Your task to perform on an android device: Toggle the flashlight Image 0: 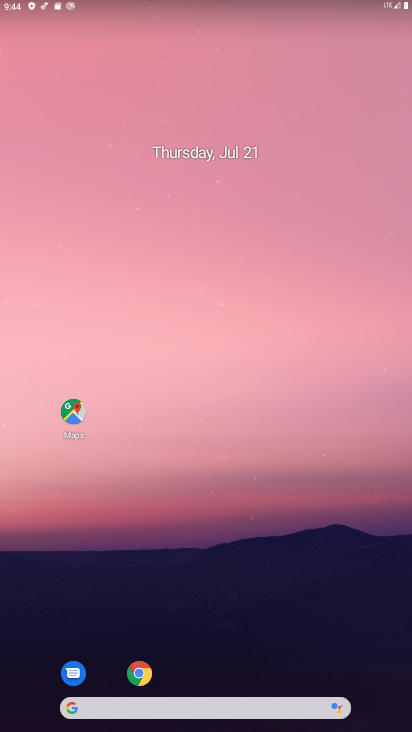
Step 0: drag from (214, 683) to (220, 157)
Your task to perform on an android device: Toggle the flashlight Image 1: 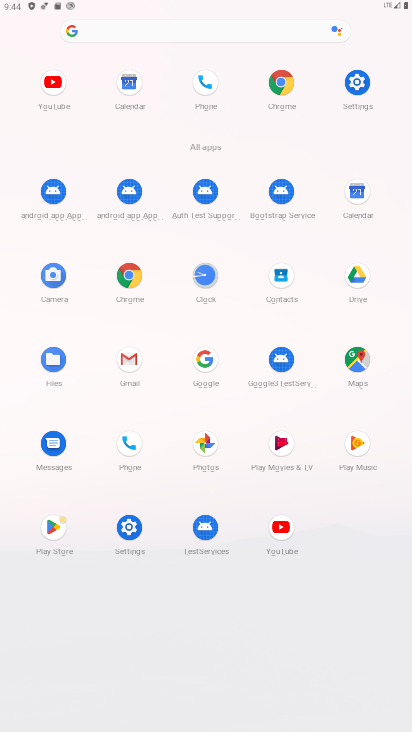
Step 1: click (355, 79)
Your task to perform on an android device: Toggle the flashlight Image 2: 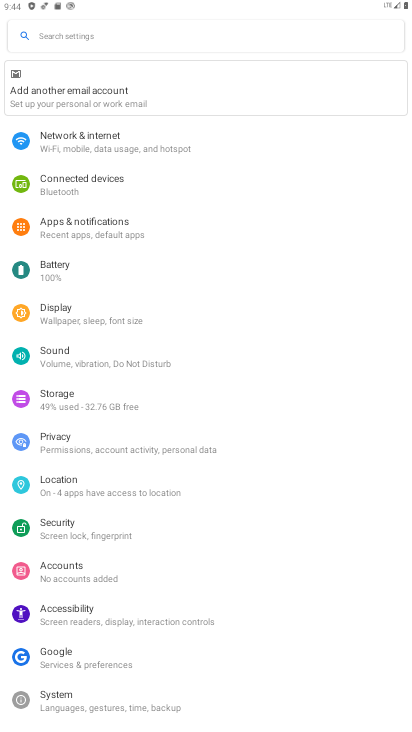
Step 2: task complete